Your task to perform on an android device: Do I have any events today? Image 0: 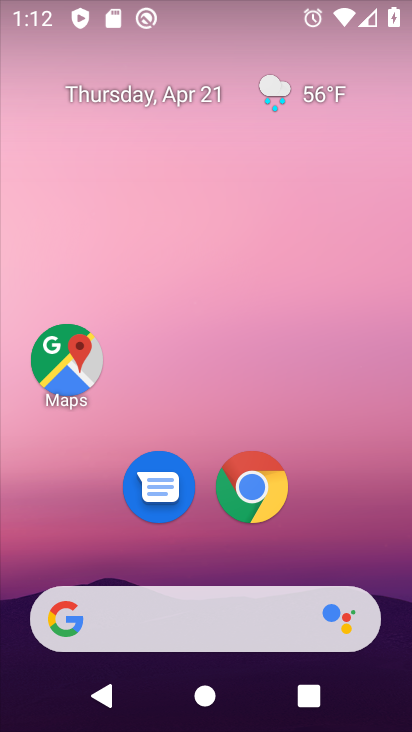
Step 0: drag from (333, 445) to (269, 126)
Your task to perform on an android device: Do I have any events today? Image 1: 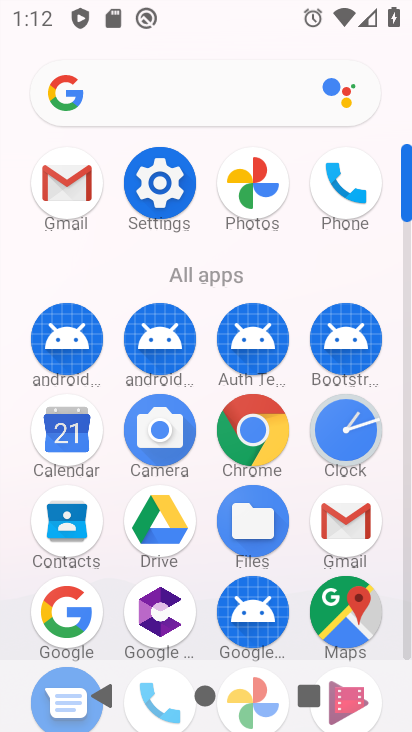
Step 1: click (55, 434)
Your task to perform on an android device: Do I have any events today? Image 2: 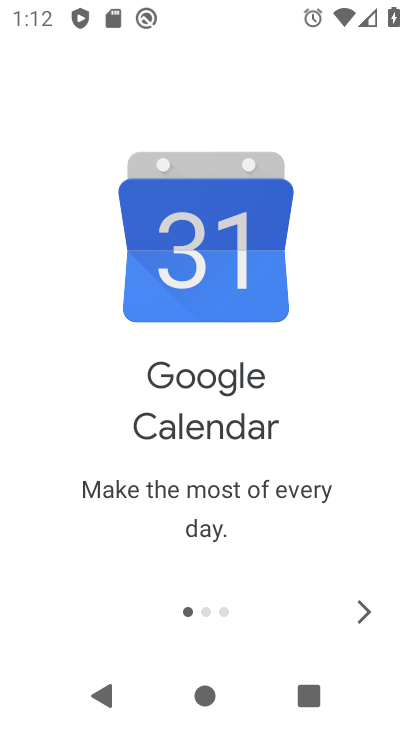
Step 2: click (358, 608)
Your task to perform on an android device: Do I have any events today? Image 3: 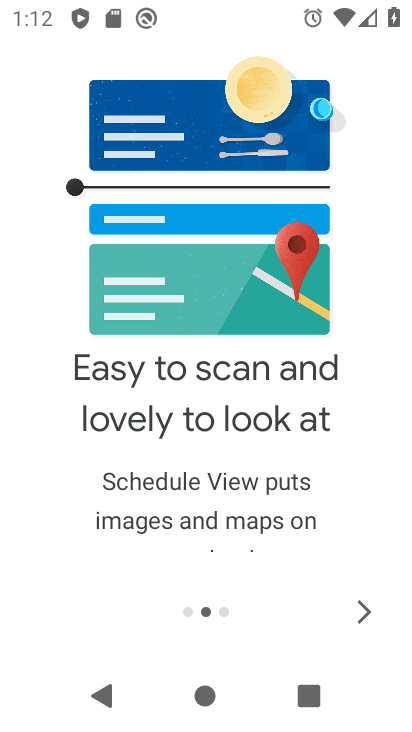
Step 3: click (358, 608)
Your task to perform on an android device: Do I have any events today? Image 4: 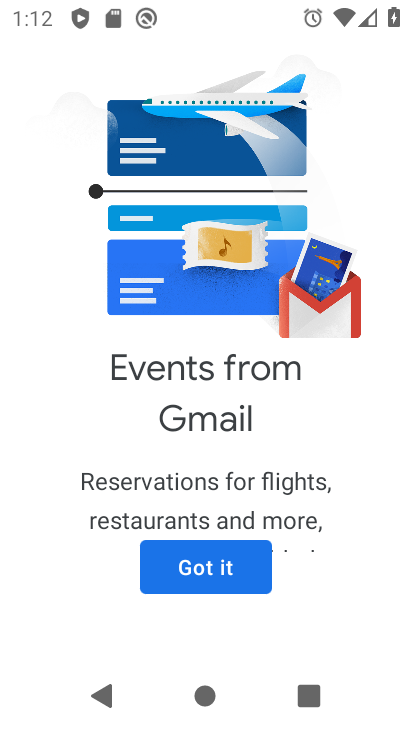
Step 4: click (208, 573)
Your task to perform on an android device: Do I have any events today? Image 5: 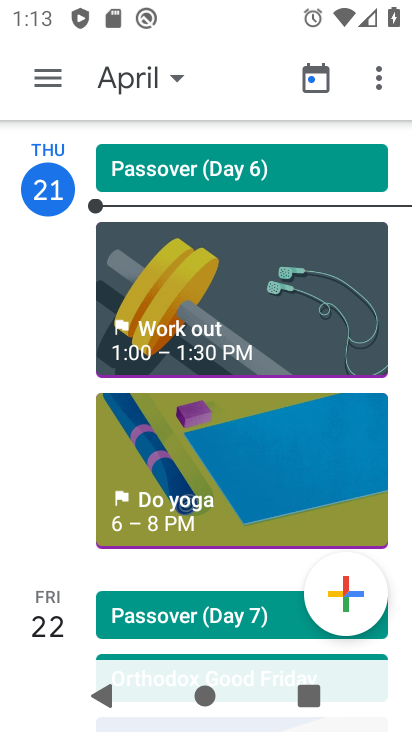
Step 5: task complete